Your task to perform on an android device: add a contact Image 0: 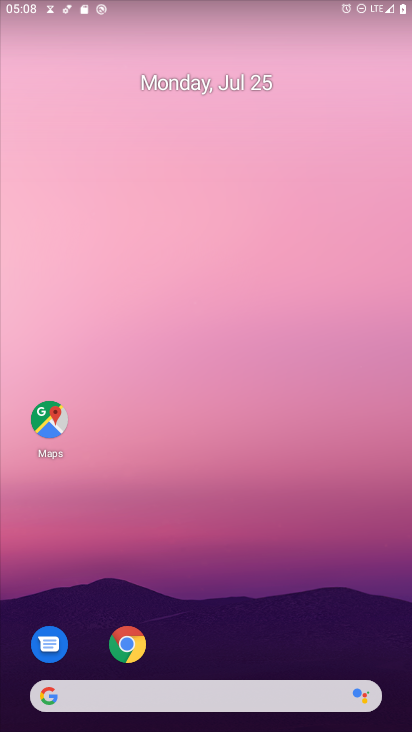
Step 0: press home button
Your task to perform on an android device: add a contact Image 1: 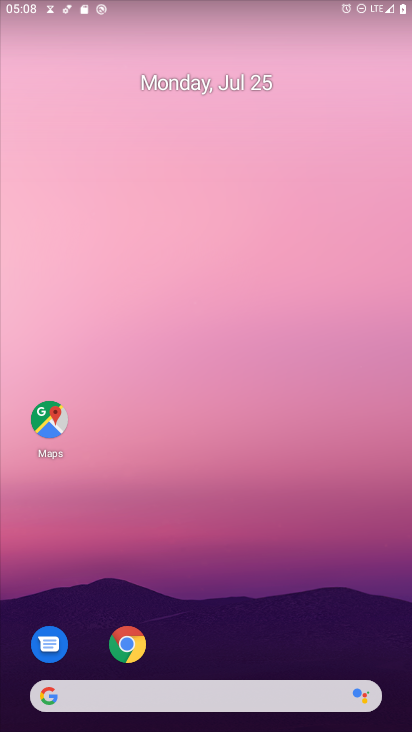
Step 1: drag from (285, 639) to (267, 227)
Your task to perform on an android device: add a contact Image 2: 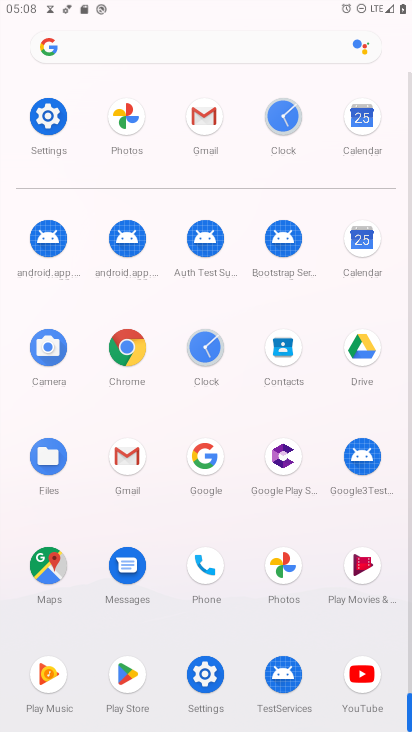
Step 2: click (284, 344)
Your task to perform on an android device: add a contact Image 3: 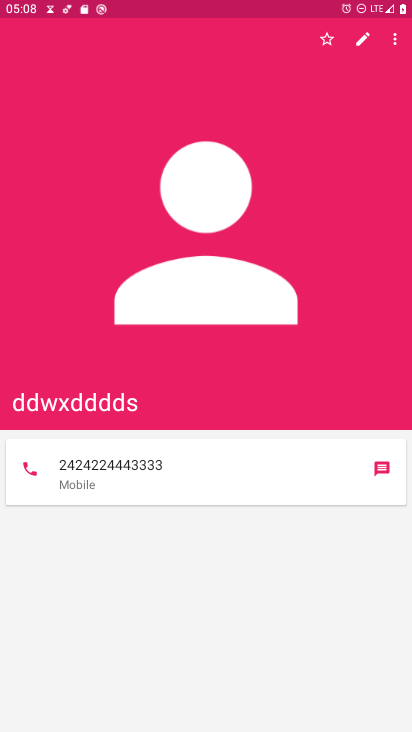
Step 3: press back button
Your task to perform on an android device: add a contact Image 4: 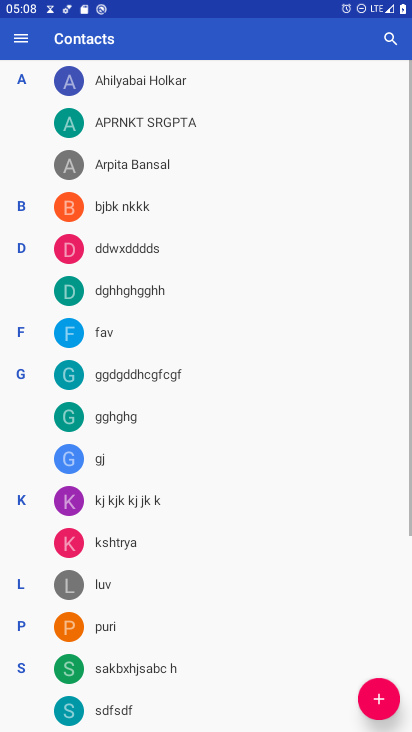
Step 4: click (386, 701)
Your task to perform on an android device: add a contact Image 5: 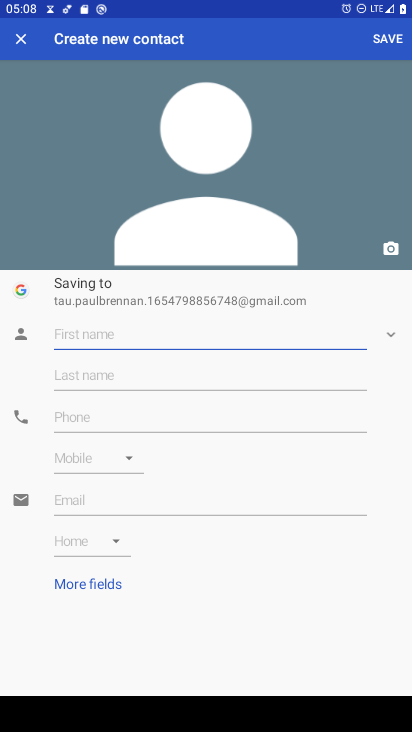
Step 5: type "ccdvdvvffvfvfv"
Your task to perform on an android device: add a contact Image 6: 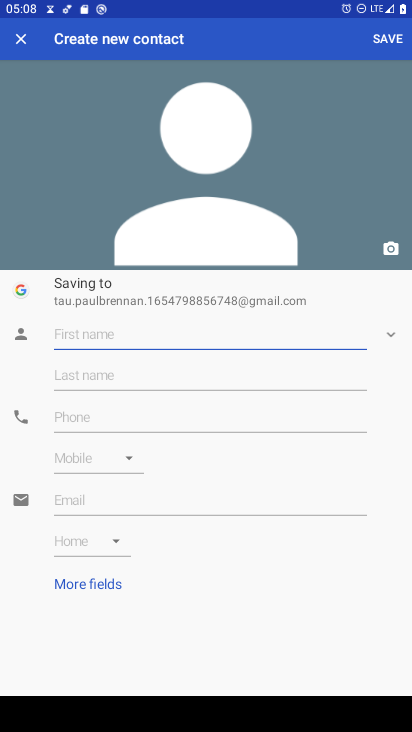
Step 6: click (108, 333)
Your task to perform on an android device: add a contact Image 7: 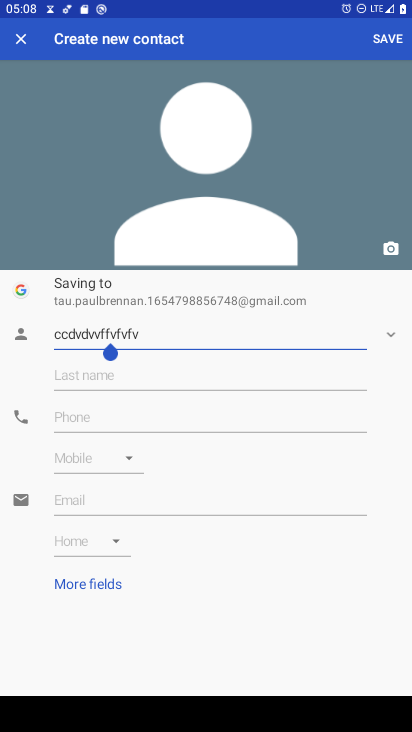
Step 7: click (112, 419)
Your task to perform on an android device: add a contact Image 8: 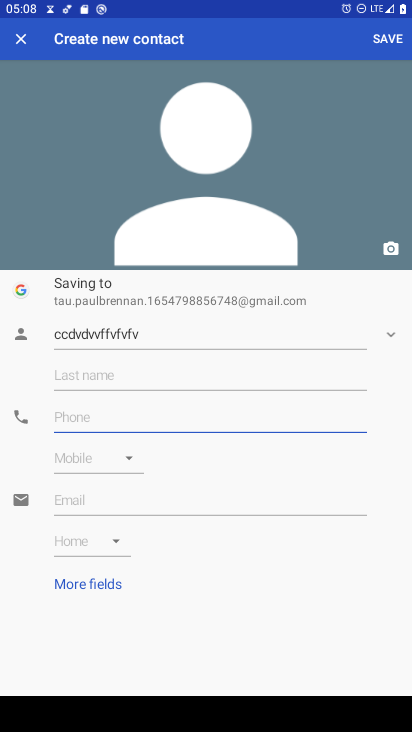
Step 8: type "3445355555"
Your task to perform on an android device: add a contact Image 9: 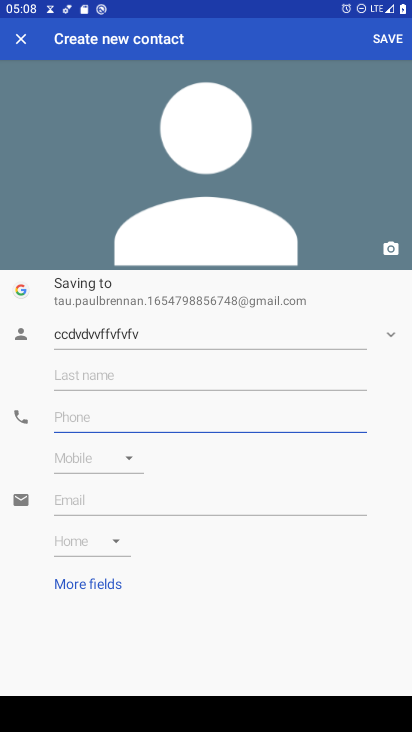
Step 9: click (76, 417)
Your task to perform on an android device: add a contact Image 10: 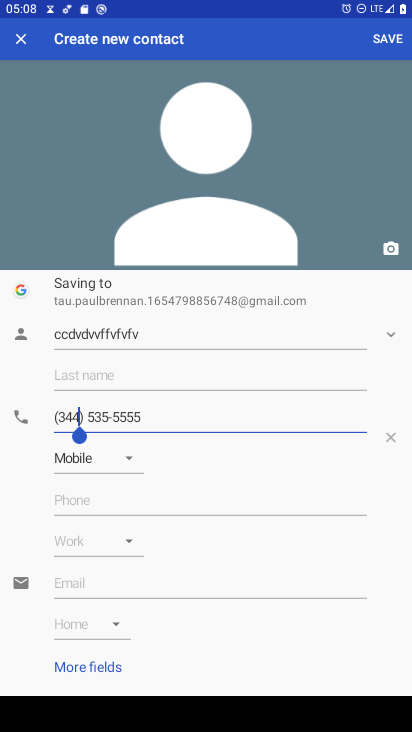
Step 10: click (390, 40)
Your task to perform on an android device: add a contact Image 11: 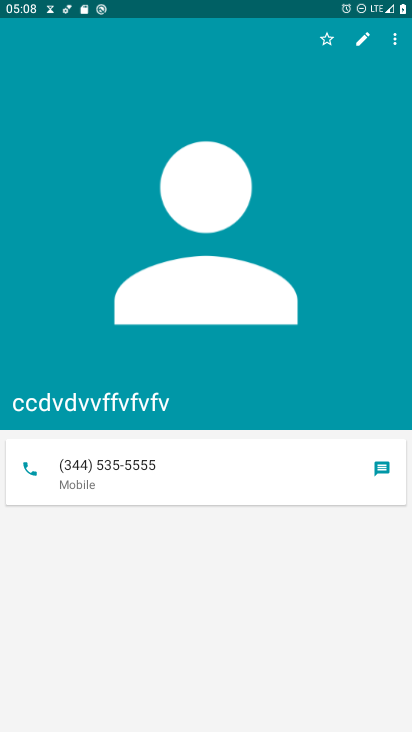
Step 11: task complete